Your task to perform on an android device: Open Yahoo.com Image 0: 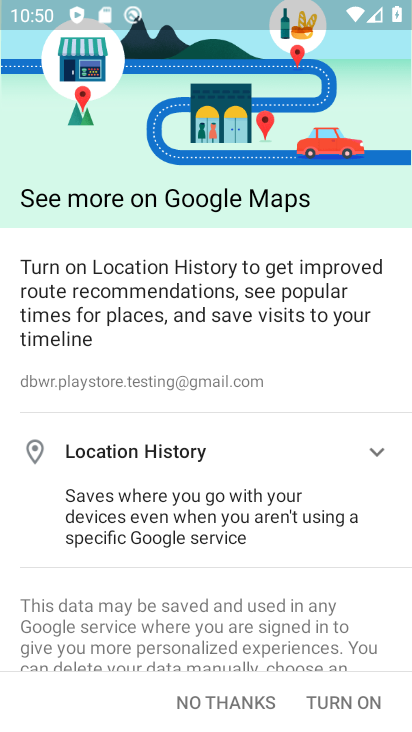
Step 0: press home button
Your task to perform on an android device: Open Yahoo.com Image 1: 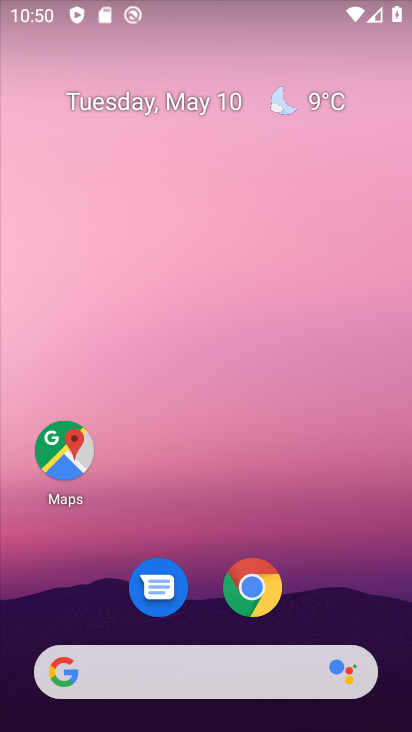
Step 1: click (253, 586)
Your task to perform on an android device: Open Yahoo.com Image 2: 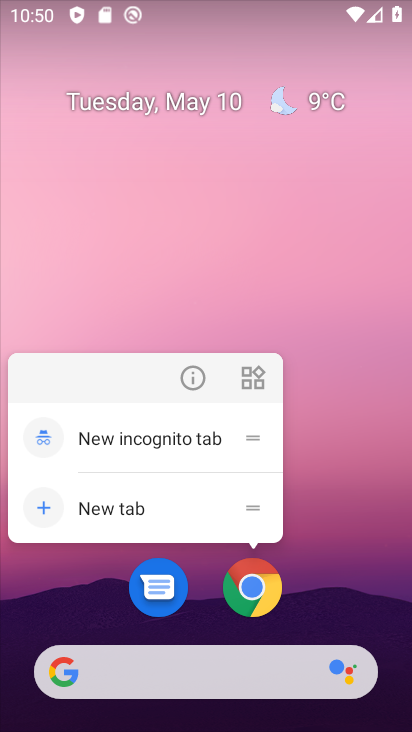
Step 2: click (255, 587)
Your task to perform on an android device: Open Yahoo.com Image 3: 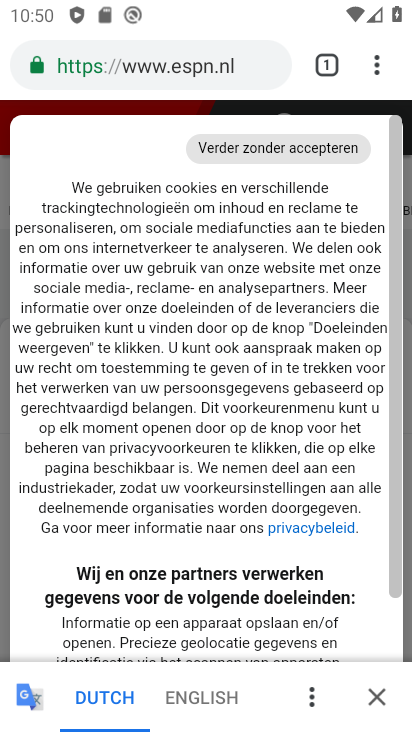
Step 3: click (157, 67)
Your task to perform on an android device: Open Yahoo.com Image 4: 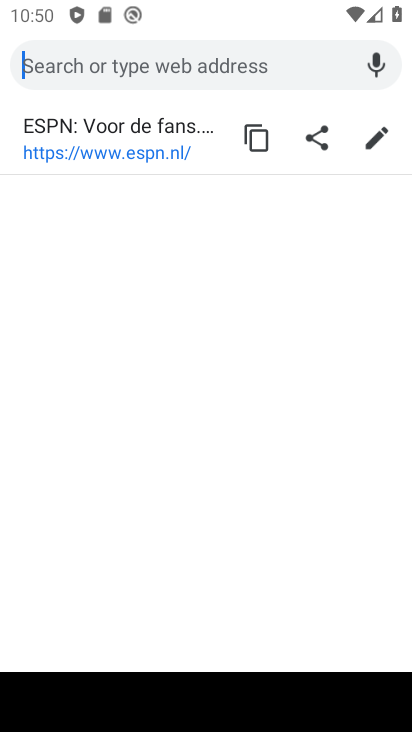
Step 4: type "yahoo.com"
Your task to perform on an android device: Open Yahoo.com Image 5: 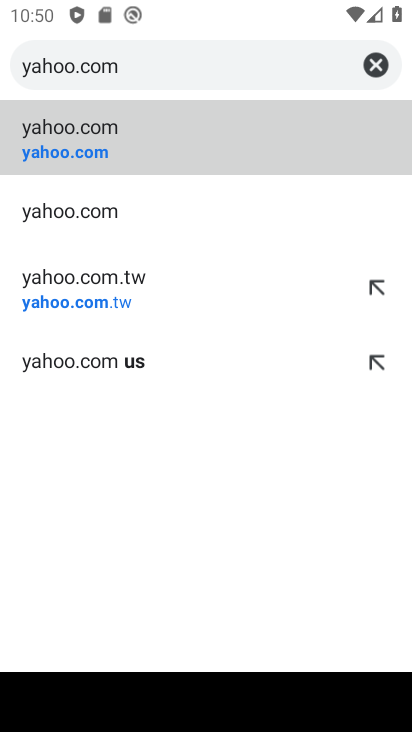
Step 5: click (68, 150)
Your task to perform on an android device: Open Yahoo.com Image 6: 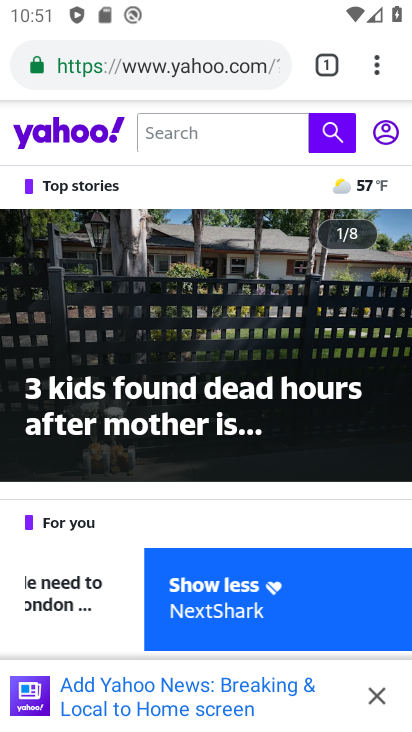
Step 6: task complete